Your task to perform on an android device: turn off sleep mode Image 0: 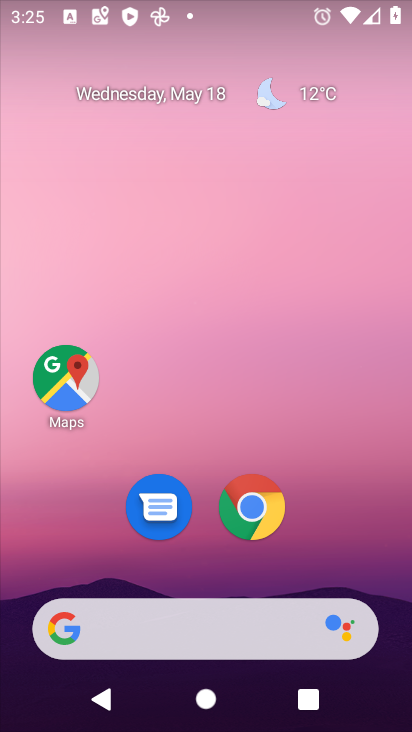
Step 0: drag from (398, 602) to (310, 69)
Your task to perform on an android device: turn off sleep mode Image 1: 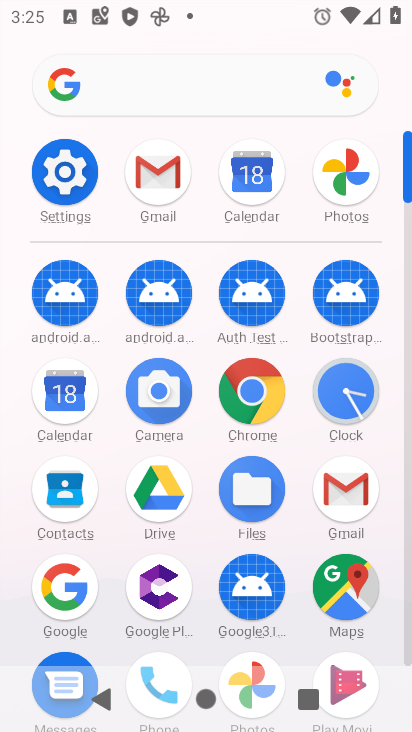
Step 1: click (407, 650)
Your task to perform on an android device: turn off sleep mode Image 2: 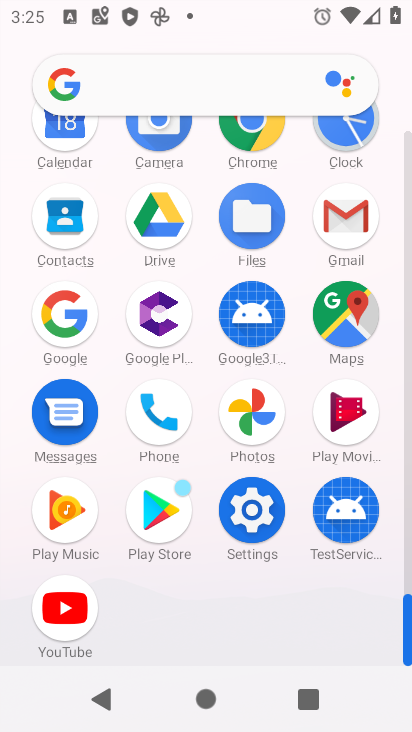
Step 2: click (249, 513)
Your task to perform on an android device: turn off sleep mode Image 3: 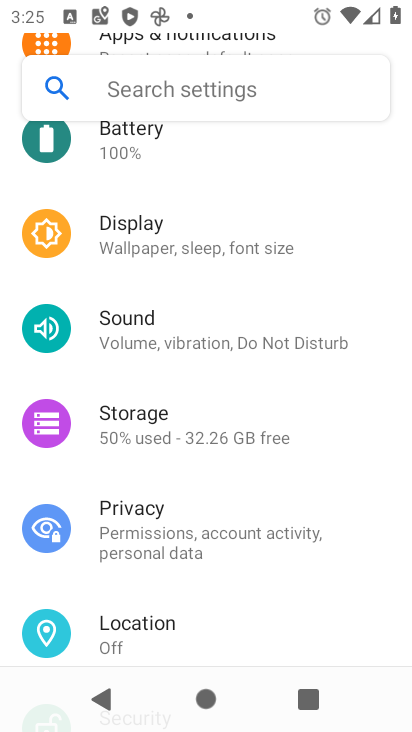
Step 3: click (173, 240)
Your task to perform on an android device: turn off sleep mode Image 4: 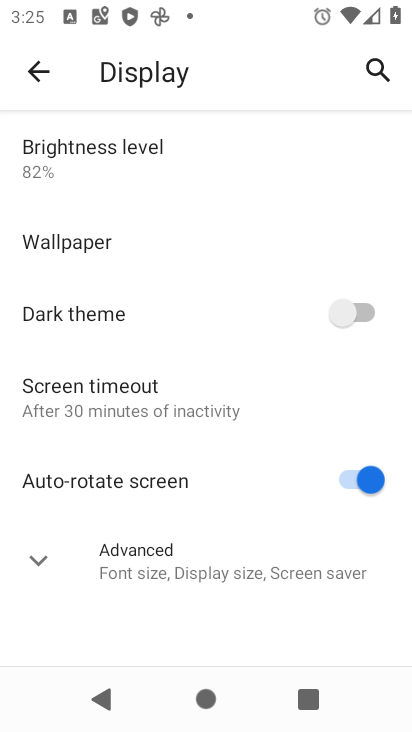
Step 4: click (32, 557)
Your task to perform on an android device: turn off sleep mode Image 5: 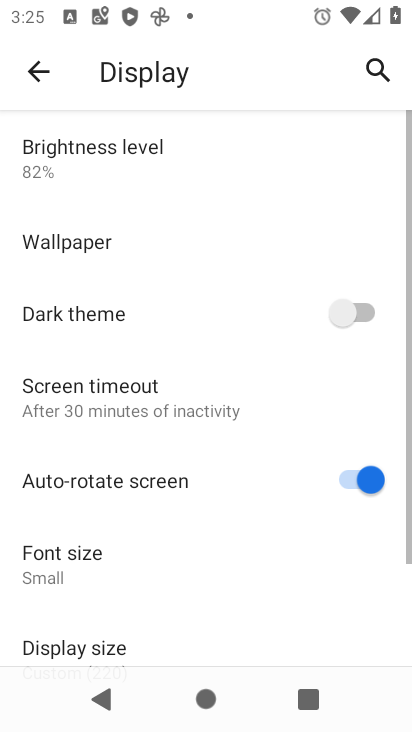
Step 5: task complete